Your task to perform on an android device: all mails in gmail Image 0: 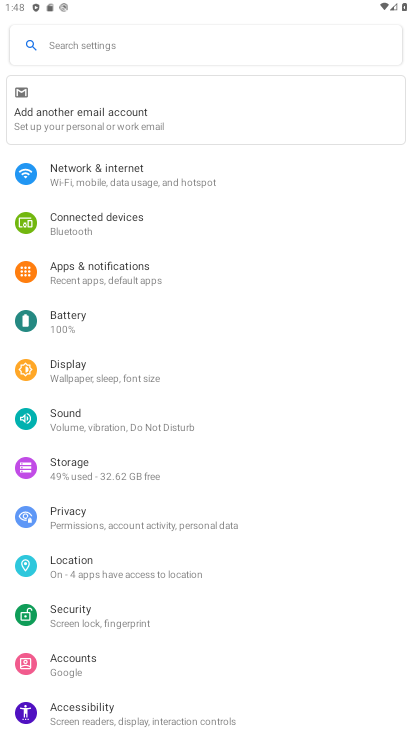
Step 0: press home button
Your task to perform on an android device: all mails in gmail Image 1: 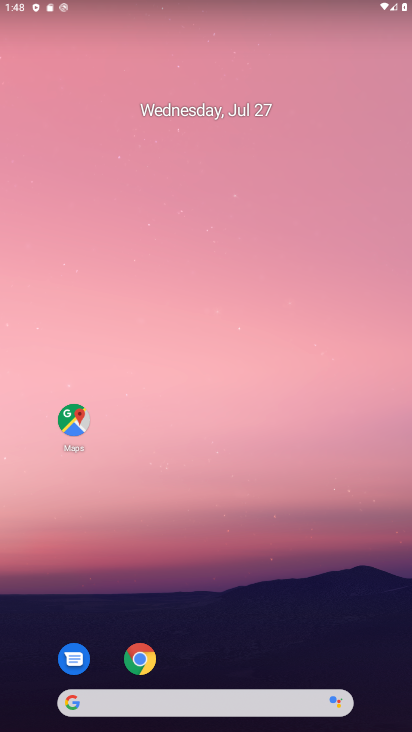
Step 1: drag from (245, 643) to (288, 167)
Your task to perform on an android device: all mails in gmail Image 2: 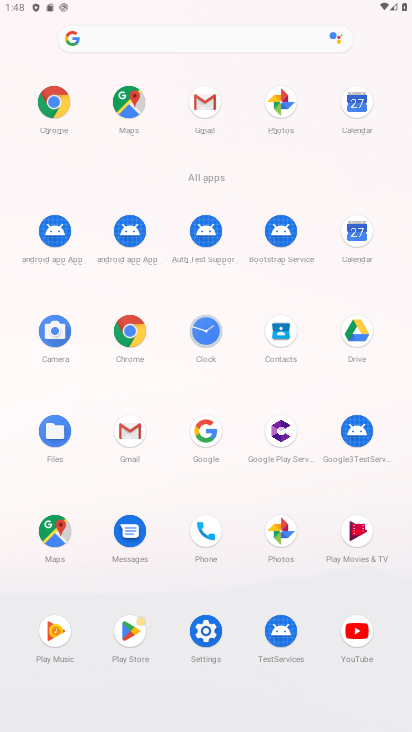
Step 2: click (134, 444)
Your task to perform on an android device: all mails in gmail Image 3: 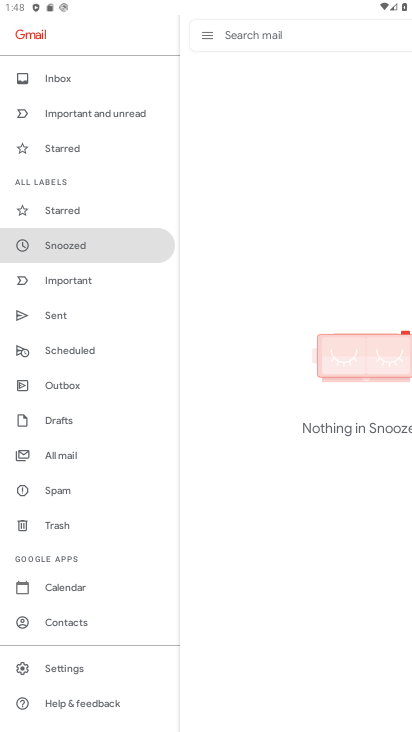
Step 3: task complete